Your task to perform on an android device: Look up the new steph curry shoes Image 0: 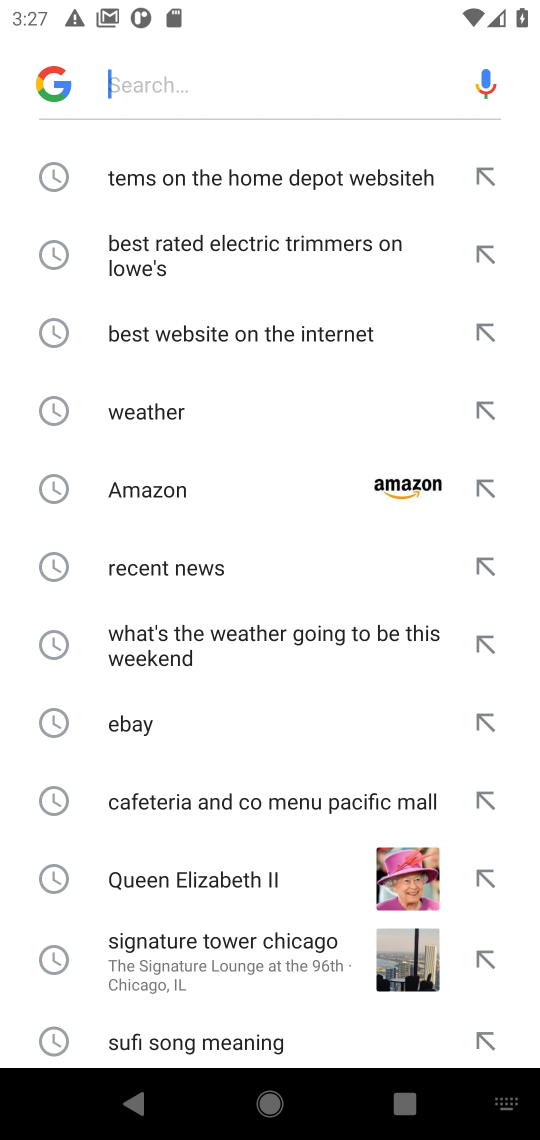
Step 0: press home button
Your task to perform on an android device: Look up the new steph curry shoes Image 1: 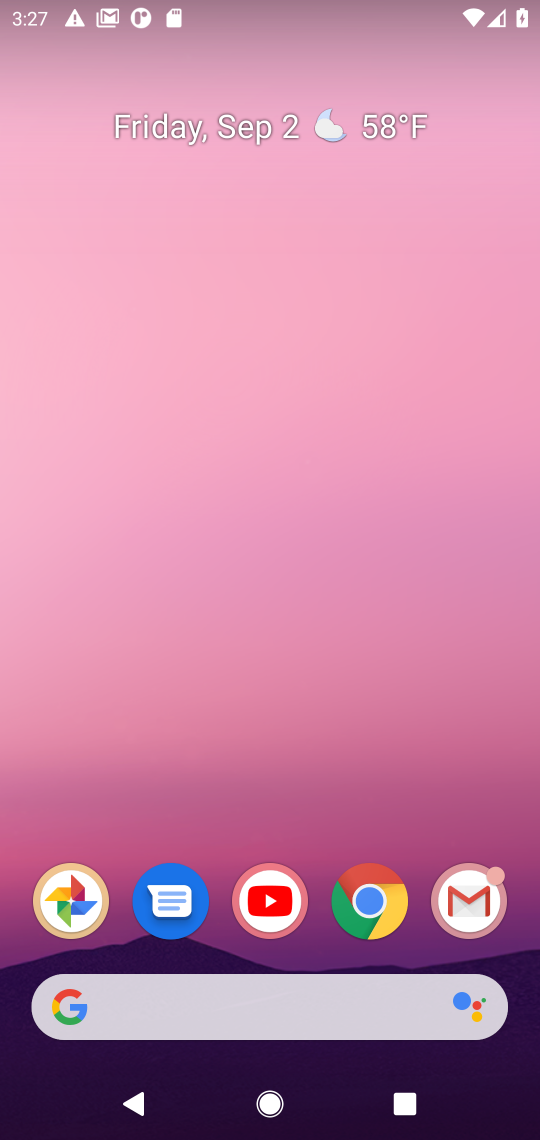
Step 1: drag from (286, 769) to (290, 75)
Your task to perform on an android device: Look up the new steph curry shoes Image 2: 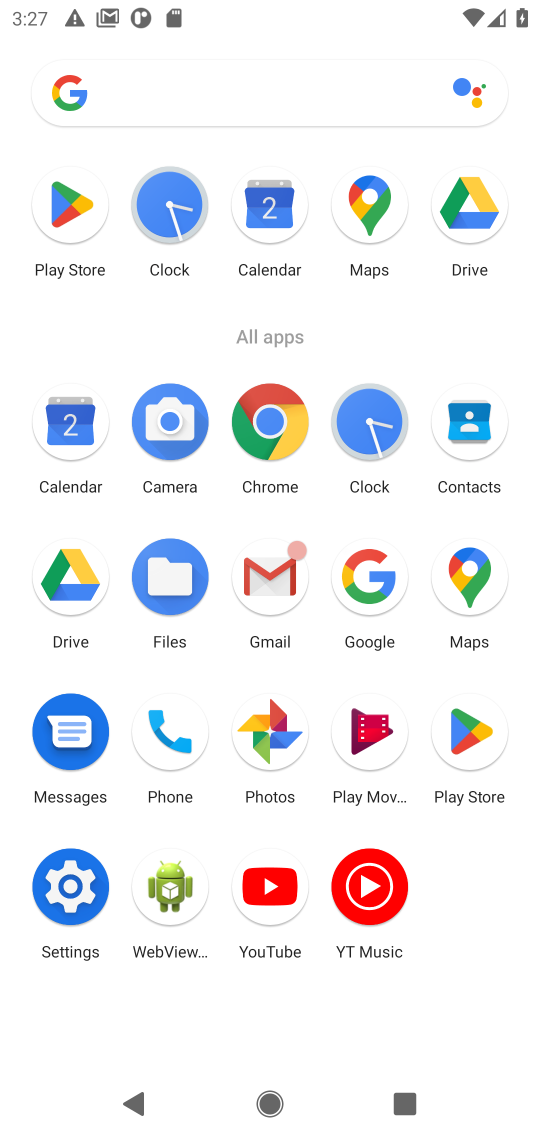
Step 2: click (274, 406)
Your task to perform on an android device: Look up the new steph curry shoes Image 3: 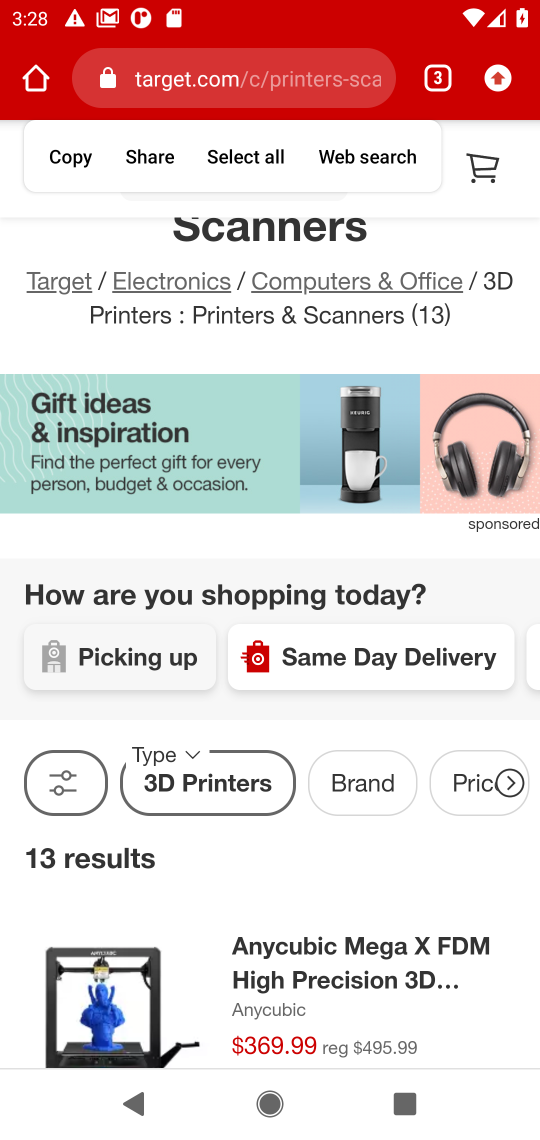
Step 3: click (301, 77)
Your task to perform on an android device: Look up the new steph curry shoes Image 4: 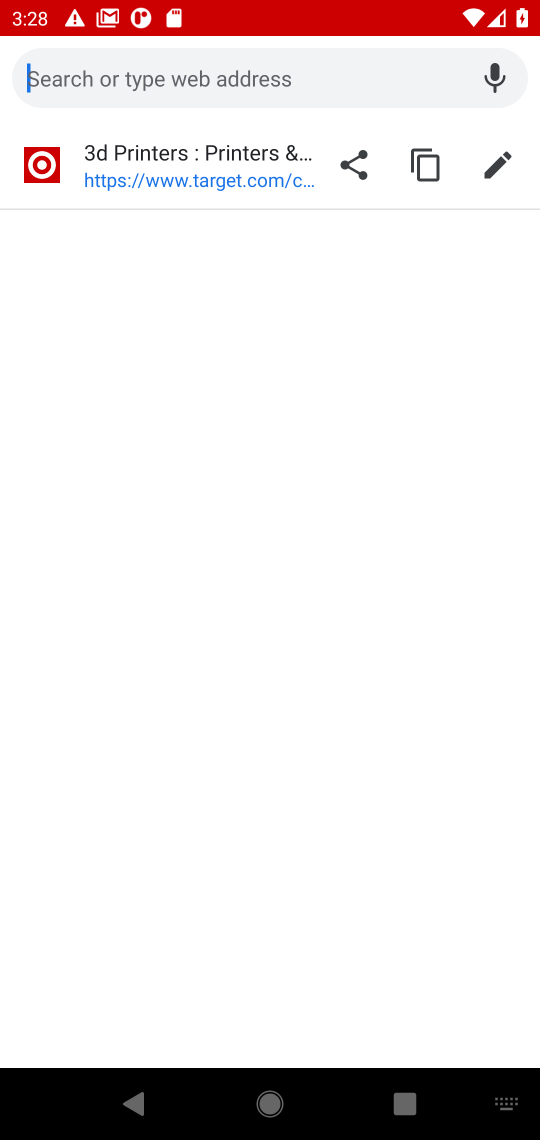
Step 4: type "new steph curry shoes"
Your task to perform on an android device: Look up the new steph curry shoes Image 5: 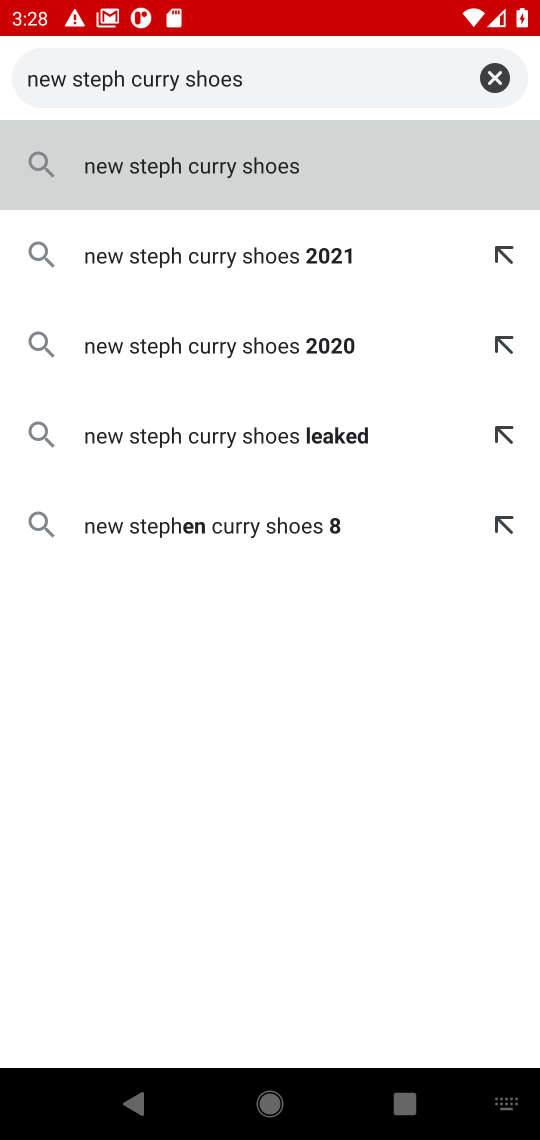
Step 5: press enter
Your task to perform on an android device: Look up the new steph curry shoes Image 6: 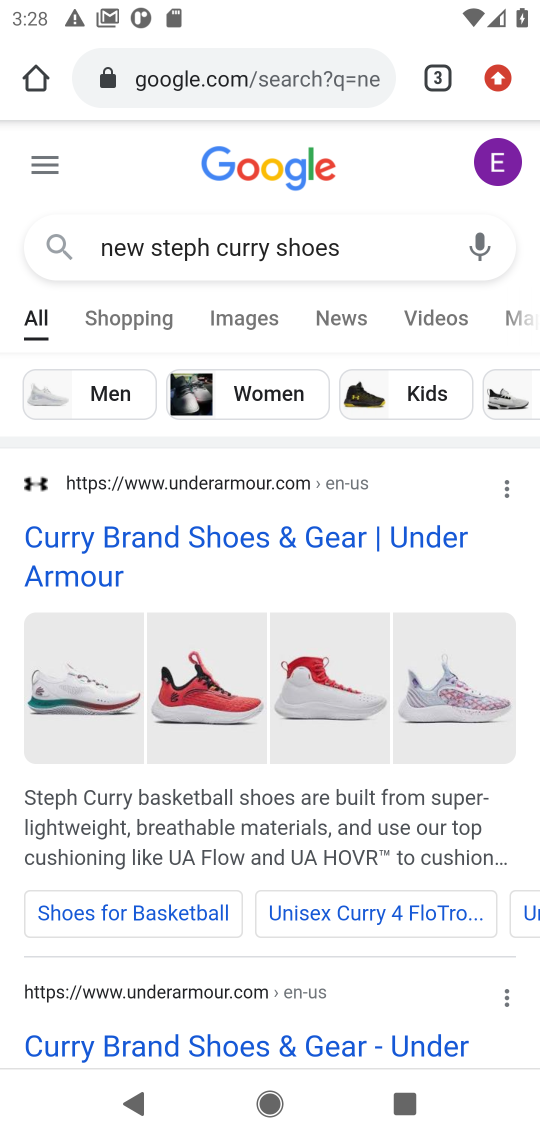
Step 6: click (97, 531)
Your task to perform on an android device: Look up the new steph curry shoes Image 7: 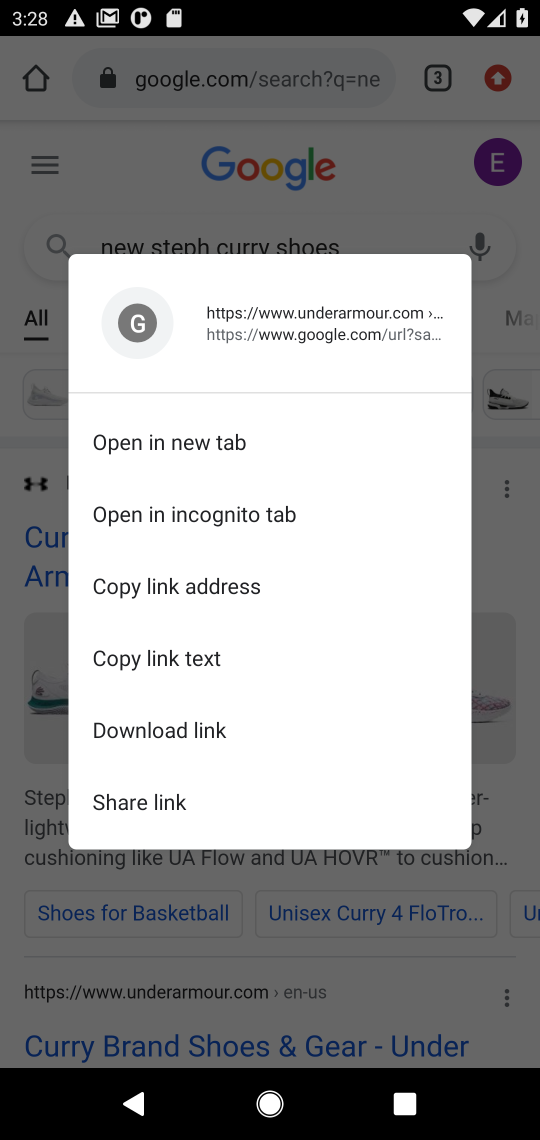
Step 7: click (171, 443)
Your task to perform on an android device: Look up the new steph curry shoes Image 8: 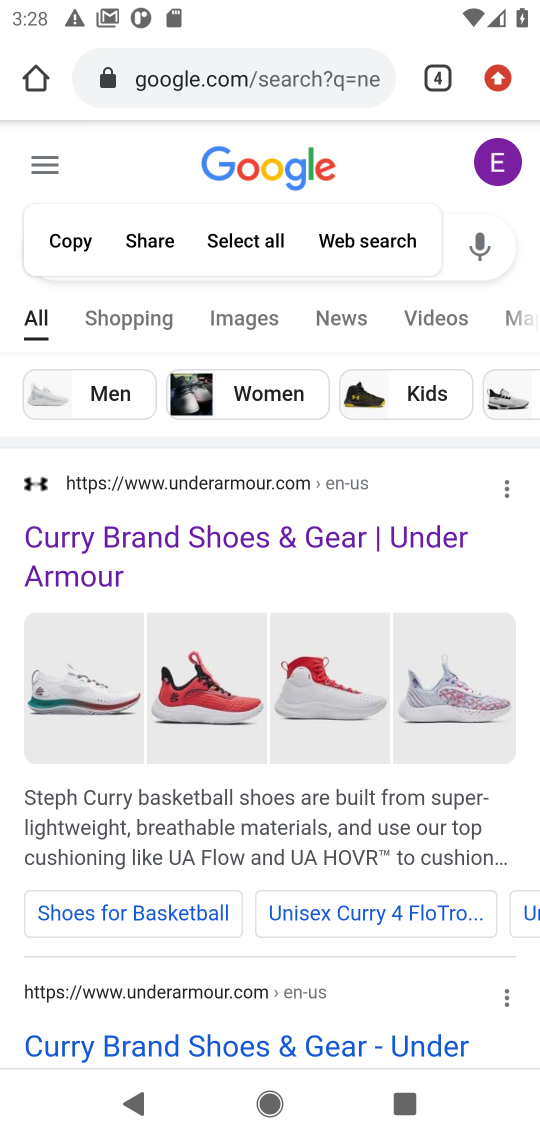
Step 8: click (183, 525)
Your task to perform on an android device: Look up the new steph curry shoes Image 9: 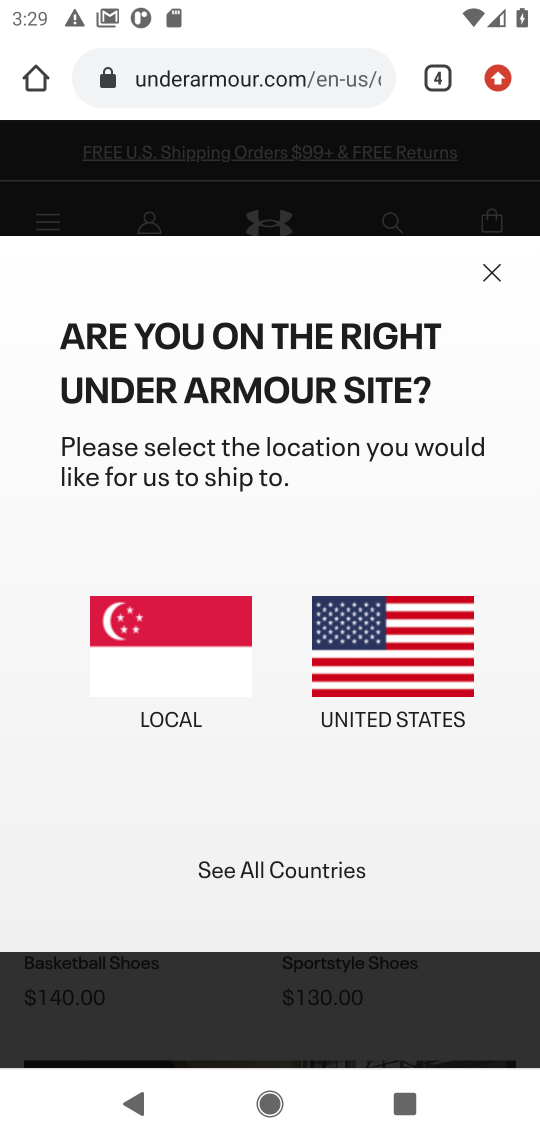
Step 9: click (376, 671)
Your task to perform on an android device: Look up the new steph curry shoes Image 10: 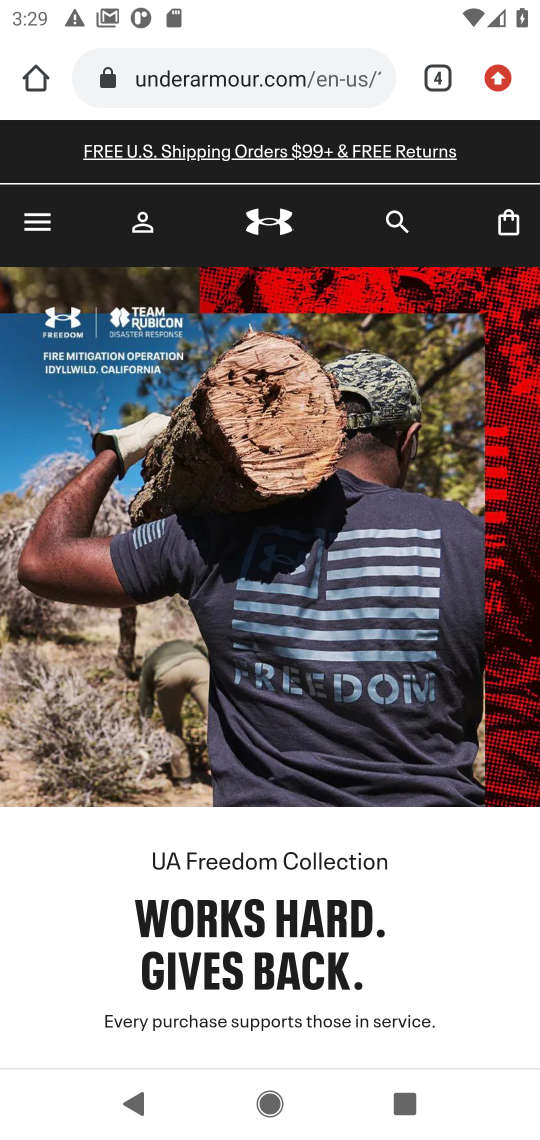
Step 10: task complete